Your task to perform on an android device: Empty the shopping cart on target.com. Add "panasonic triple a" to the cart on target.com Image 0: 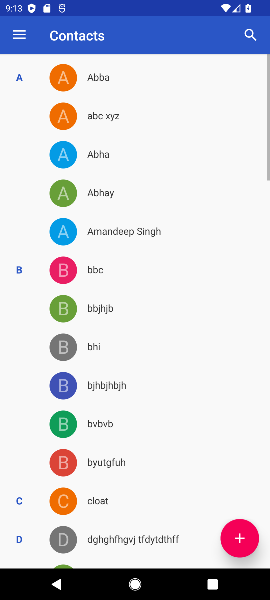
Step 0: press home button
Your task to perform on an android device: Empty the shopping cart on target.com. Add "panasonic triple a" to the cart on target.com Image 1: 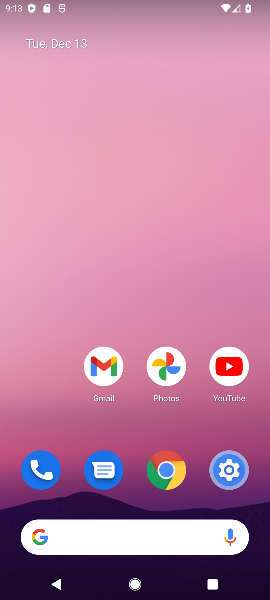
Step 1: click (61, 539)
Your task to perform on an android device: Empty the shopping cart on target.com. Add "panasonic triple a" to the cart on target.com Image 2: 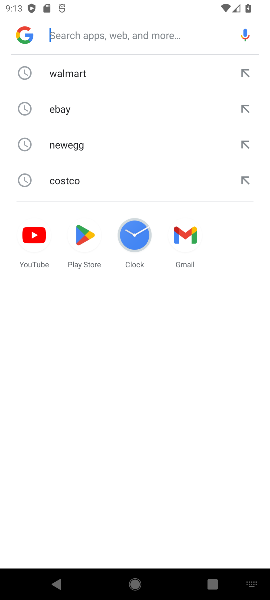
Step 2: type "target.com"
Your task to perform on an android device: Empty the shopping cart on target.com. Add "panasonic triple a" to the cart on target.com Image 3: 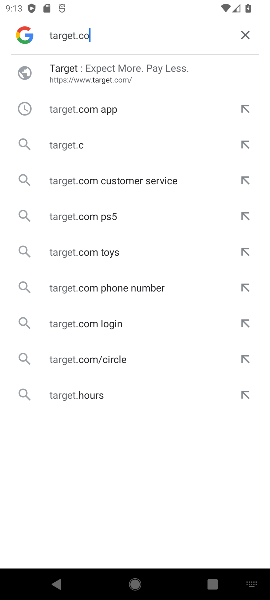
Step 3: press enter
Your task to perform on an android device: Empty the shopping cart on target.com. Add "panasonic triple a" to the cart on target.com Image 4: 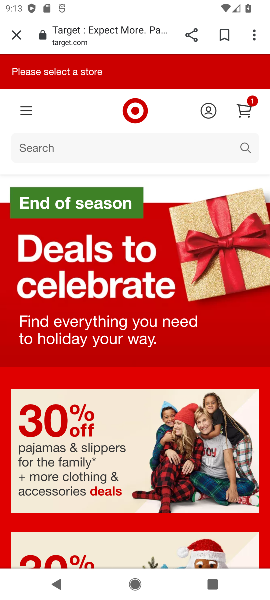
Step 4: click (242, 104)
Your task to perform on an android device: Empty the shopping cart on target.com. Add "panasonic triple a" to the cart on target.com Image 5: 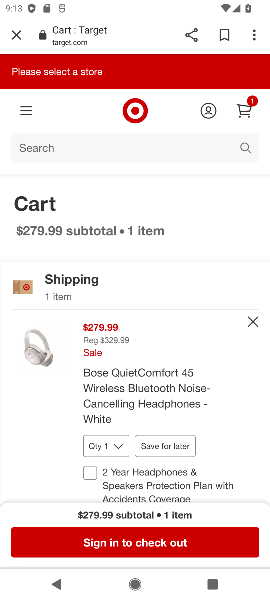
Step 5: click (253, 323)
Your task to perform on an android device: Empty the shopping cart on target.com. Add "panasonic triple a" to the cart on target.com Image 6: 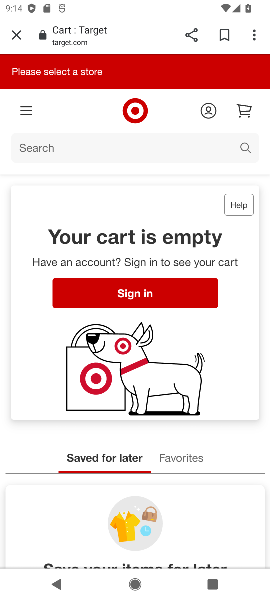
Step 6: click (39, 147)
Your task to perform on an android device: Empty the shopping cart on target.com. Add "panasonic triple a" to the cart on target.com Image 7: 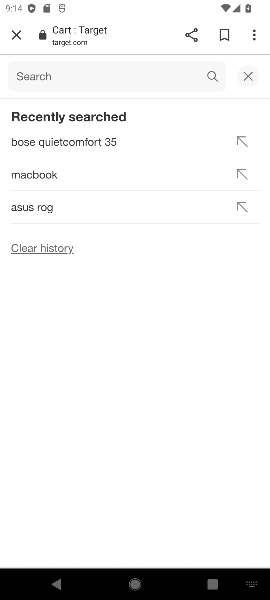
Step 7: type "panasonic triple a"
Your task to perform on an android device: Empty the shopping cart on target.com. Add "panasonic triple a" to the cart on target.com Image 8: 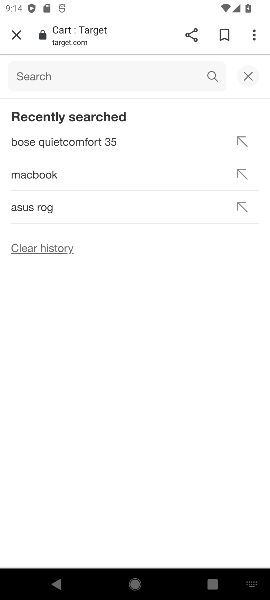
Step 8: press enter
Your task to perform on an android device: Empty the shopping cart on target.com. Add "panasonic triple a" to the cart on target.com Image 9: 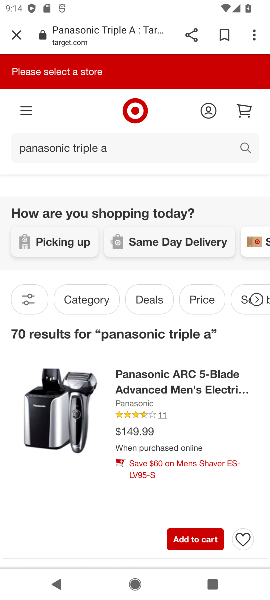
Step 9: drag from (147, 489) to (146, 278)
Your task to perform on an android device: Empty the shopping cart on target.com. Add "panasonic triple a" to the cart on target.com Image 10: 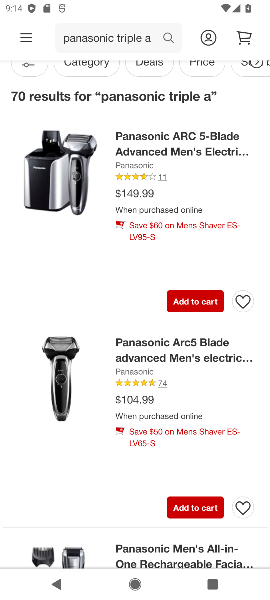
Step 10: drag from (141, 450) to (138, 255)
Your task to perform on an android device: Empty the shopping cart on target.com. Add "panasonic triple a" to the cart on target.com Image 11: 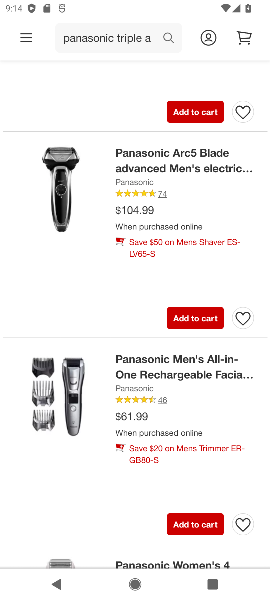
Step 11: drag from (143, 148) to (144, 425)
Your task to perform on an android device: Empty the shopping cart on target.com. Add "panasonic triple a" to the cart on target.com Image 12: 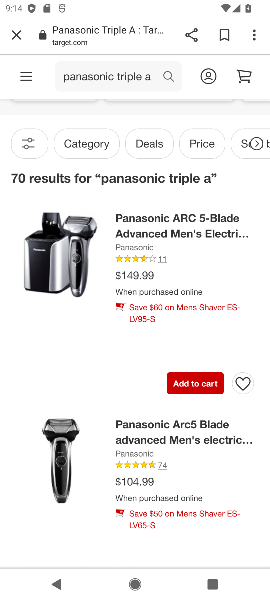
Step 12: click (185, 386)
Your task to perform on an android device: Empty the shopping cart on target.com. Add "panasonic triple a" to the cart on target.com Image 13: 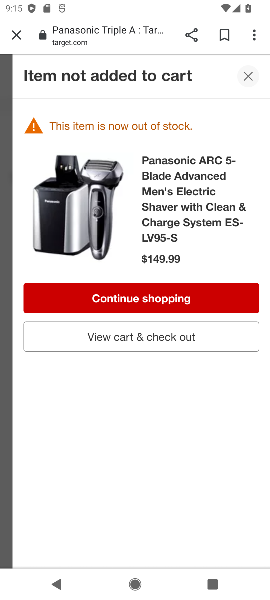
Step 13: task complete